Your task to perform on an android device: set the timer Image 0: 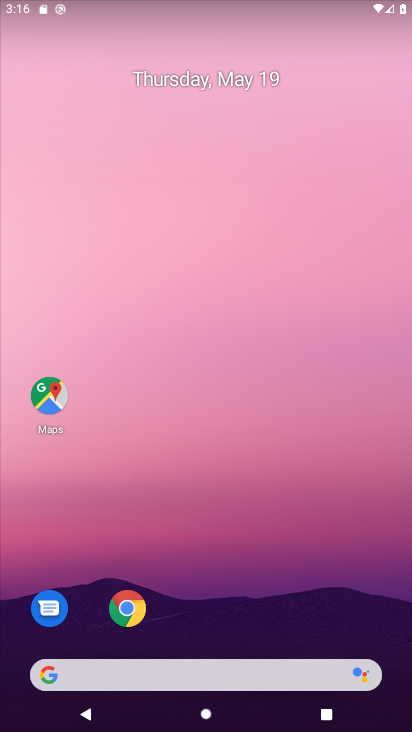
Step 0: drag from (169, 635) to (169, 228)
Your task to perform on an android device: set the timer Image 1: 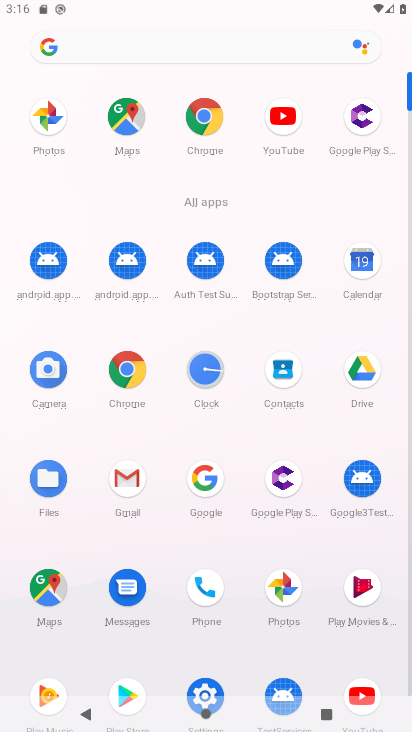
Step 1: click (212, 372)
Your task to perform on an android device: set the timer Image 2: 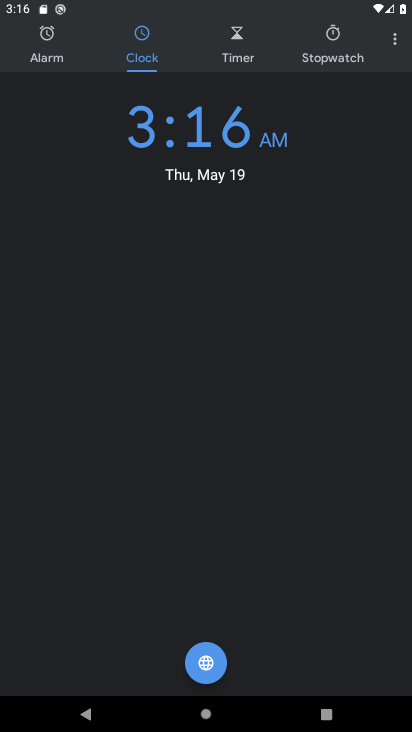
Step 2: click (234, 59)
Your task to perform on an android device: set the timer Image 3: 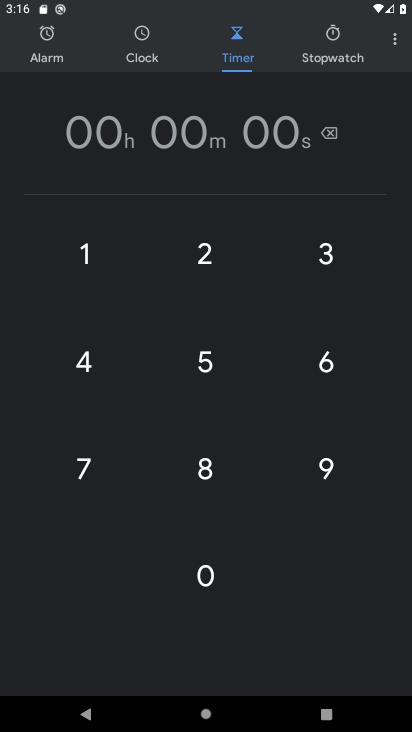
Step 3: click (206, 577)
Your task to perform on an android device: set the timer Image 4: 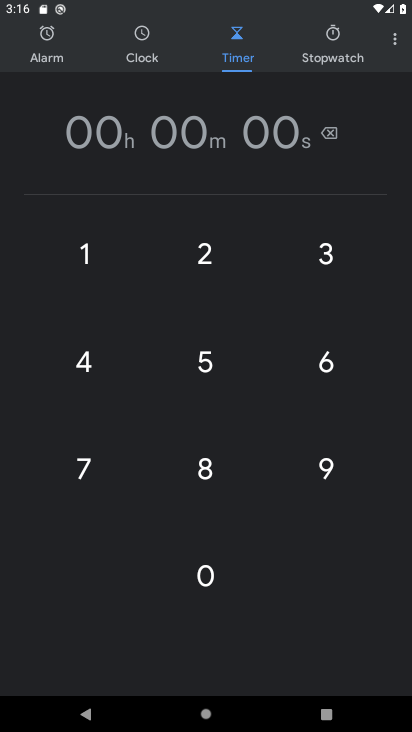
Step 4: click (75, 364)
Your task to perform on an android device: set the timer Image 5: 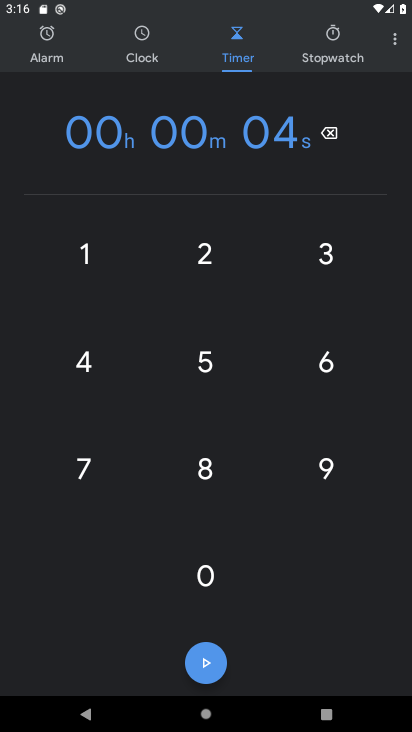
Step 5: click (194, 581)
Your task to perform on an android device: set the timer Image 6: 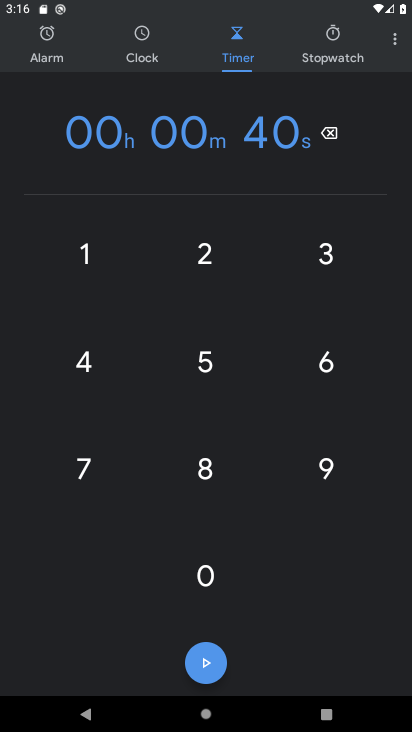
Step 6: click (223, 364)
Your task to perform on an android device: set the timer Image 7: 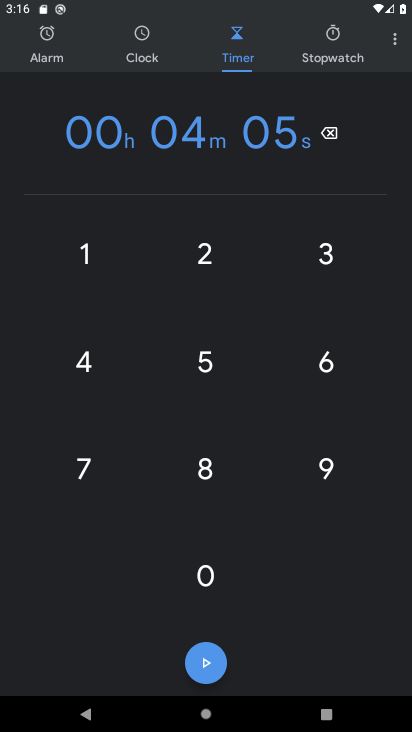
Step 7: click (206, 660)
Your task to perform on an android device: set the timer Image 8: 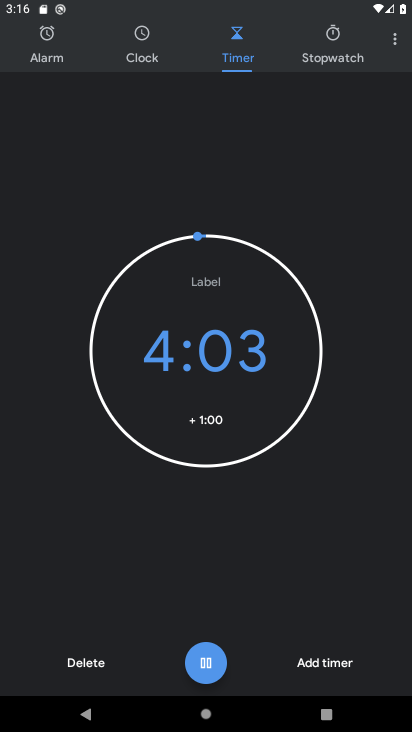
Step 8: task complete